Your task to perform on an android device: Open notification settings Image 0: 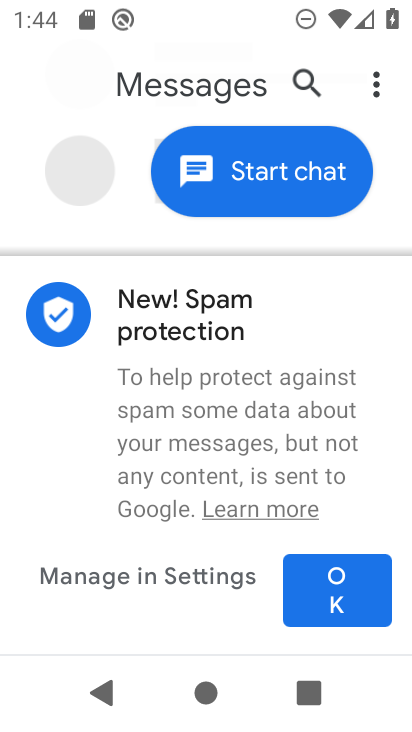
Step 0: press home button
Your task to perform on an android device: Open notification settings Image 1: 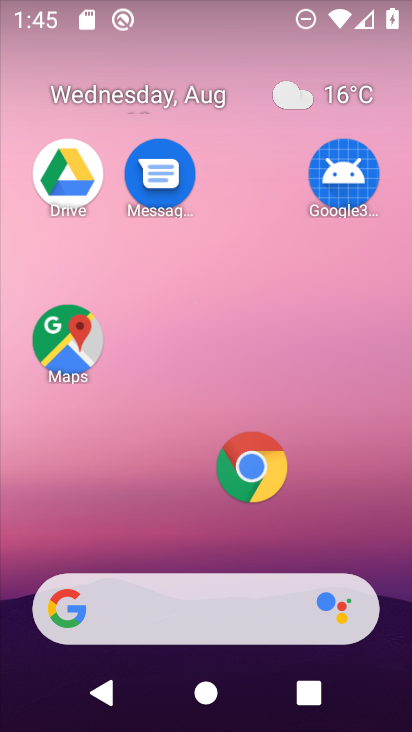
Step 1: drag from (135, 527) to (179, 59)
Your task to perform on an android device: Open notification settings Image 2: 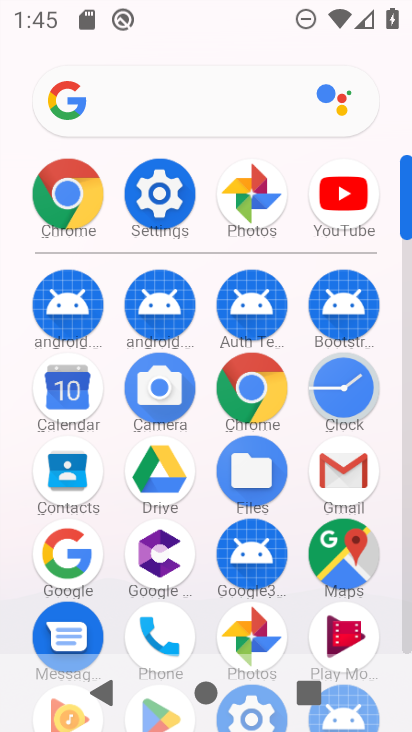
Step 2: click (162, 219)
Your task to perform on an android device: Open notification settings Image 3: 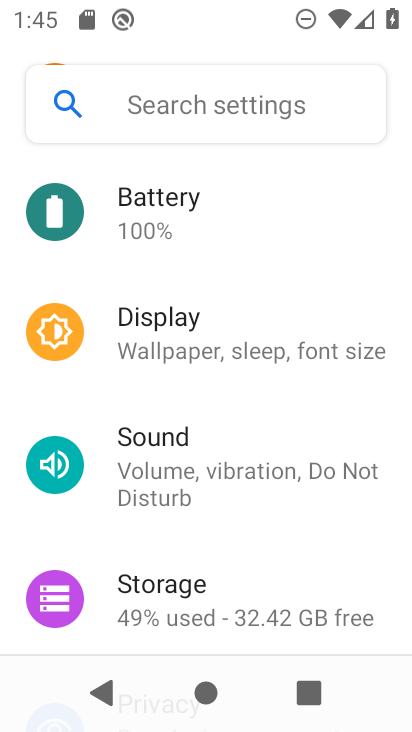
Step 3: drag from (148, 529) to (319, 74)
Your task to perform on an android device: Open notification settings Image 4: 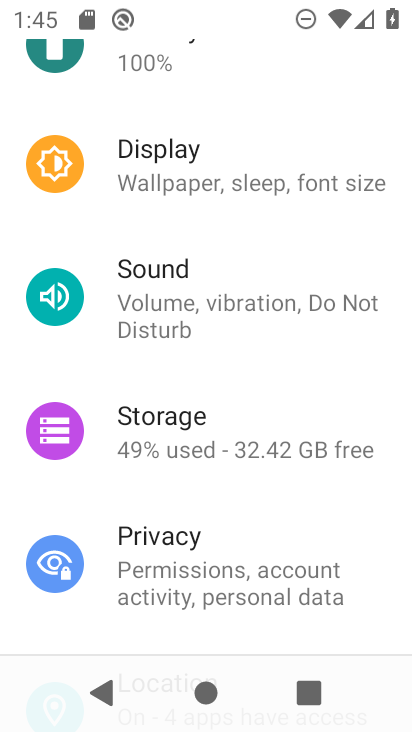
Step 4: drag from (106, 513) to (225, 59)
Your task to perform on an android device: Open notification settings Image 5: 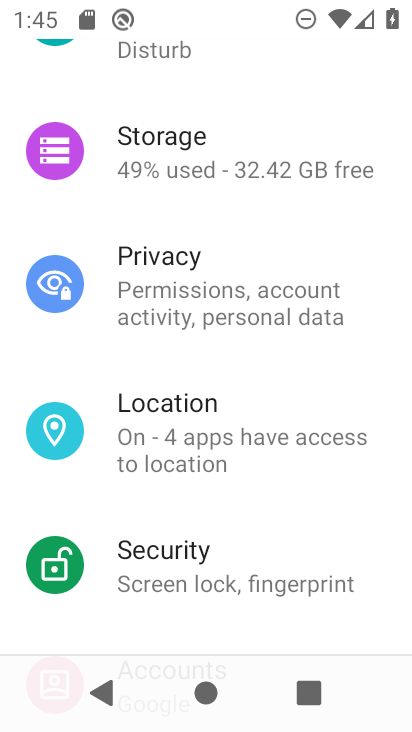
Step 5: drag from (96, 626) to (134, 137)
Your task to perform on an android device: Open notification settings Image 6: 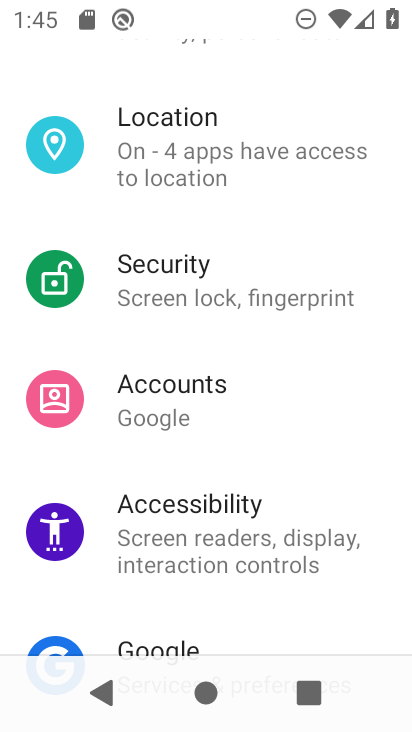
Step 6: drag from (235, 224) to (277, 577)
Your task to perform on an android device: Open notification settings Image 7: 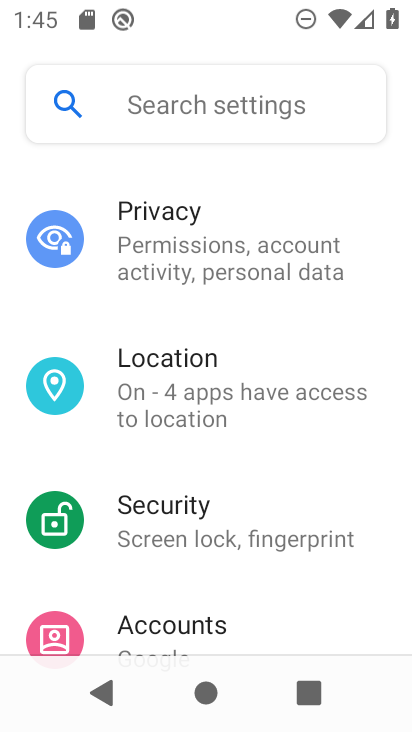
Step 7: drag from (277, 577) to (255, 243)
Your task to perform on an android device: Open notification settings Image 8: 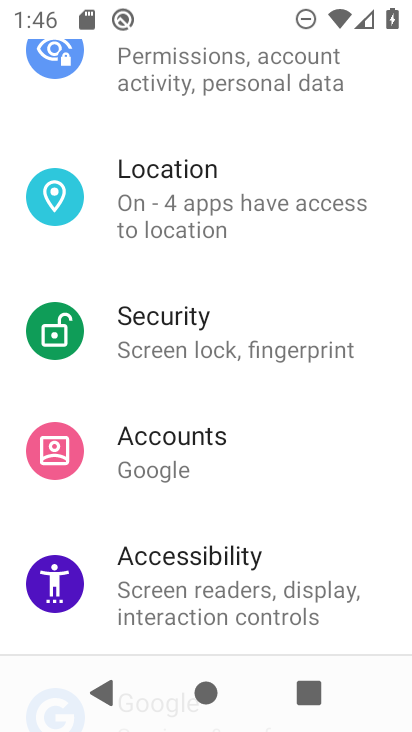
Step 8: drag from (253, 516) to (266, 329)
Your task to perform on an android device: Open notification settings Image 9: 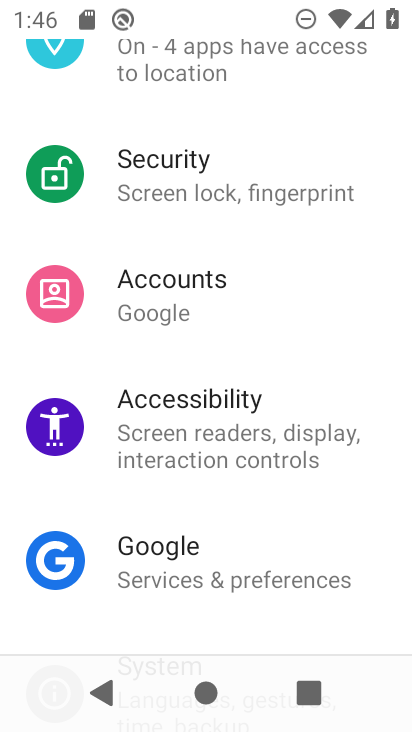
Step 9: drag from (249, 496) to (282, 133)
Your task to perform on an android device: Open notification settings Image 10: 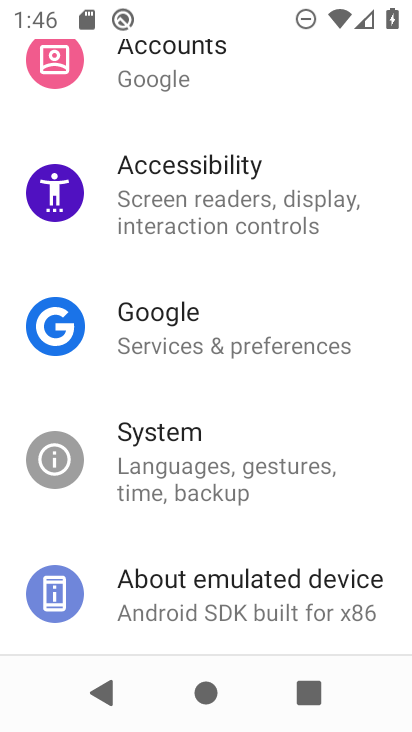
Step 10: drag from (261, 130) to (268, 556)
Your task to perform on an android device: Open notification settings Image 11: 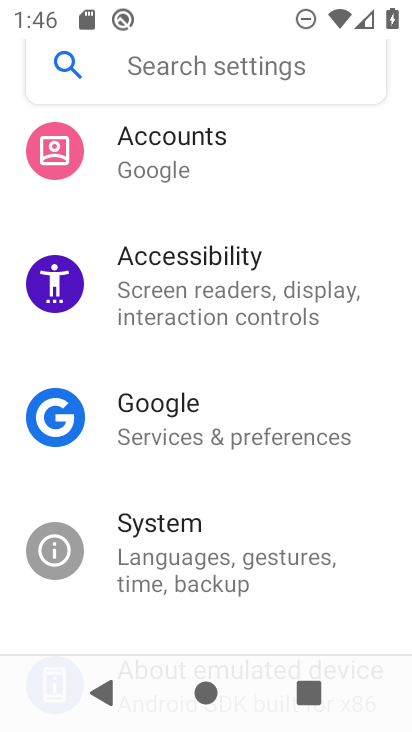
Step 11: drag from (284, 434) to (289, 514)
Your task to perform on an android device: Open notification settings Image 12: 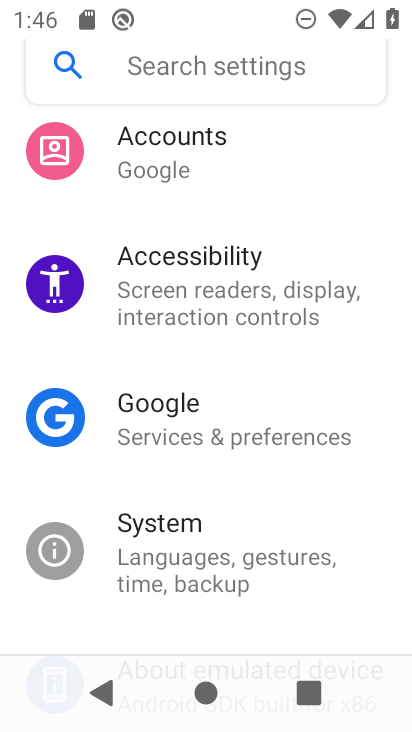
Step 12: drag from (179, 182) to (131, 621)
Your task to perform on an android device: Open notification settings Image 13: 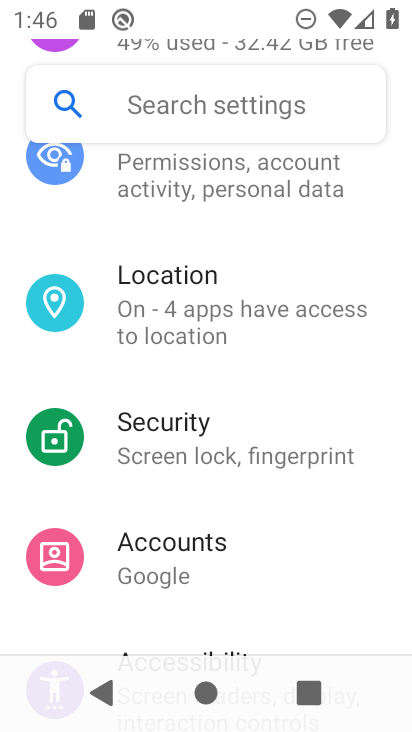
Step 13: drag from (98, 212) to (117, 571)
Your task to perform on an android device: Open notification settings Image 14: 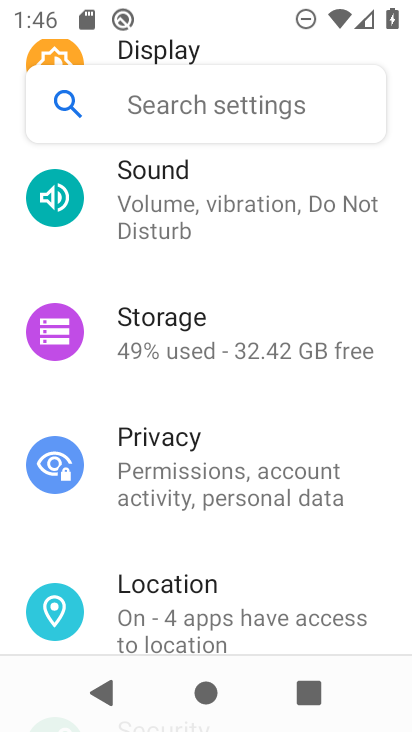
Step 14: drag from (94, 212) to (270, 672)
Your task to perform on an android device: Open notification settings Image 15: 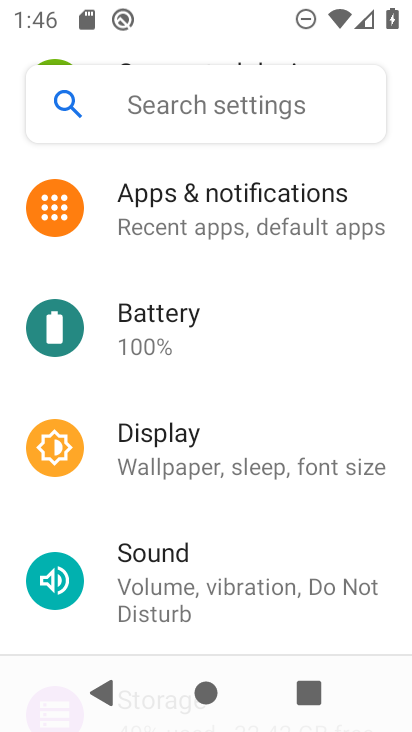
Step 15: click (132, 229)
Your task to perform on an android device: Open notification settings Image 16: 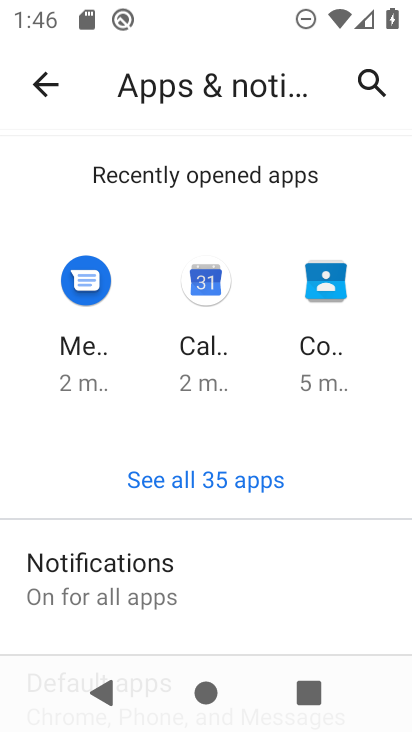
Step 16: task complete